Your task to perform on an android device: delete the emails in spam in the gmail app Image 0: 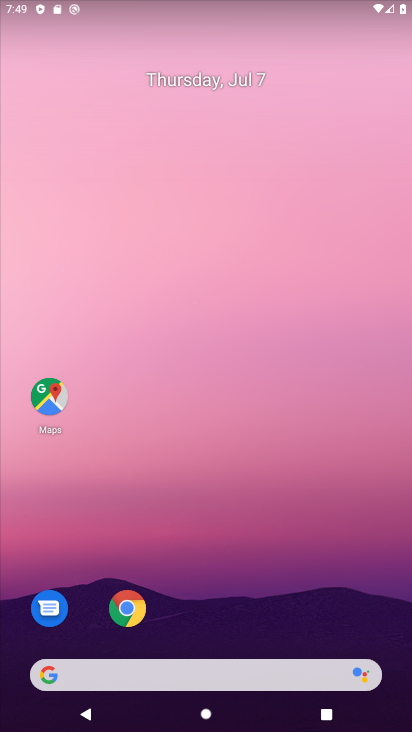
Step 0: drag from (189, 609) to (212, 190)
Your task to perform on an android device: delete the emails in spam in the gmail app Image 1: 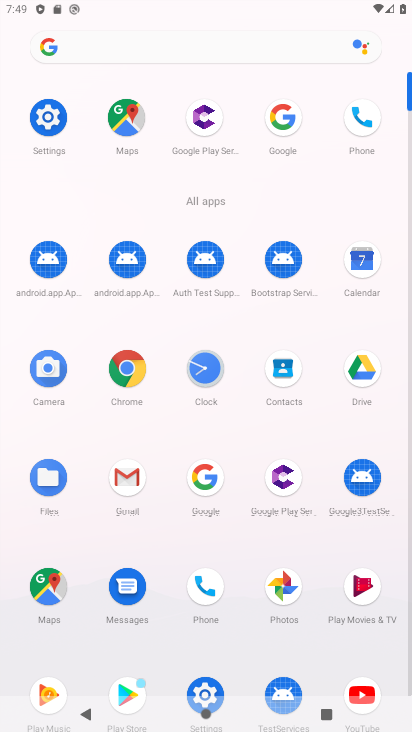
Step 1: click (135, 482)
Your task to perform on an android device: delete the emails in spam in the gmail app Image 2: 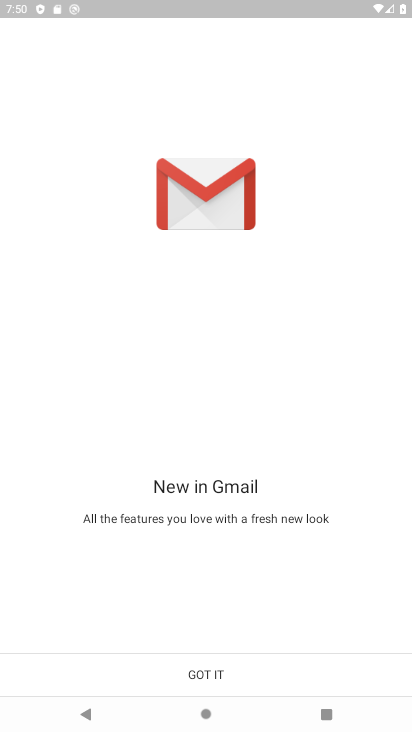
Step 2: click (221, 671)
Your task to perform on an android device: delete the emails in spam in the gmail app Image 3: 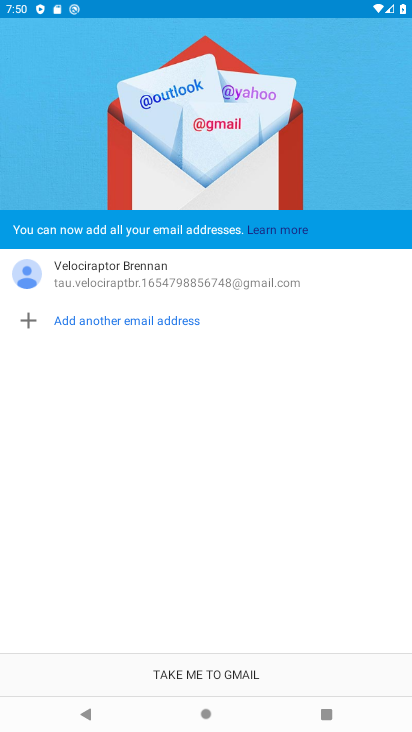
Step 3: click (173, 671)
Your task to perform on an android device: delete the emails in spam in the gmail app Image 4: 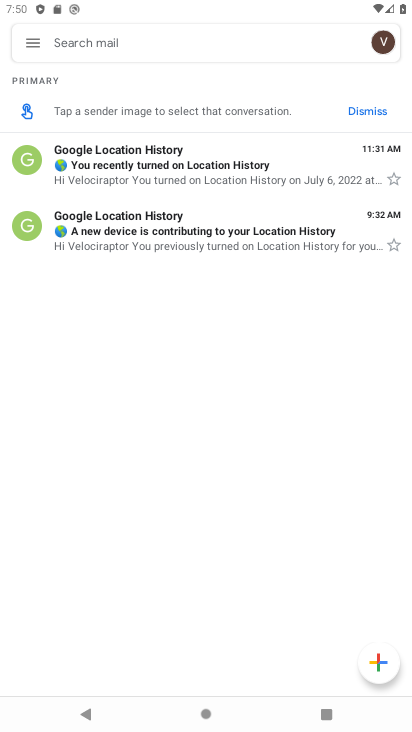
Step 4: click (31, 51)
Your task to perform on an android device: delete the emails in spam in the gmail app Image 5: 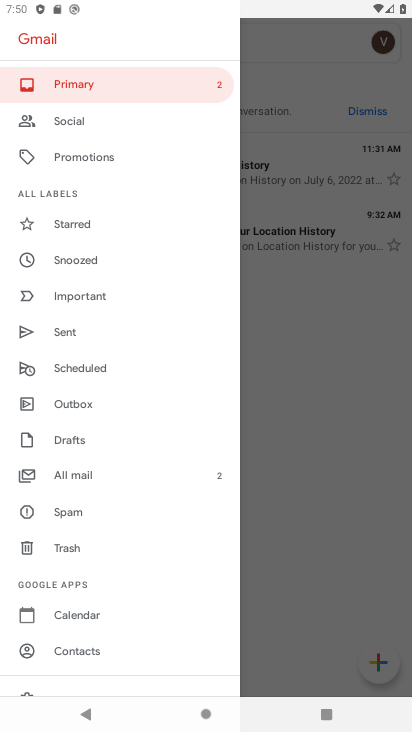
Step 5: click (110, 514)
Your task to perform on an android device: delete the emails in spam in the gmail app Image 6: 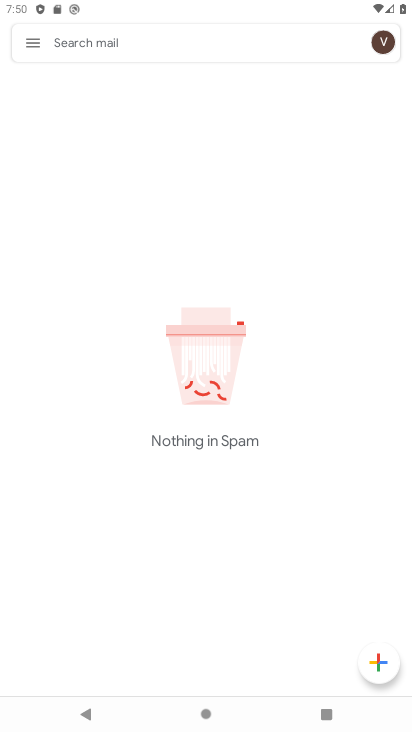
Step 6: task complete